Your task to perform on an android device: toggle translation in the chrome app Image 0: 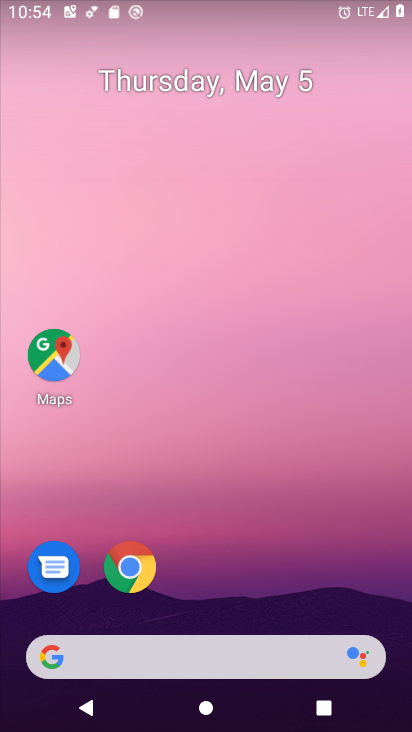
Step 0: click (138, 571)
Your task to perform on an android device: toggle translation in the chrome app Image 1: 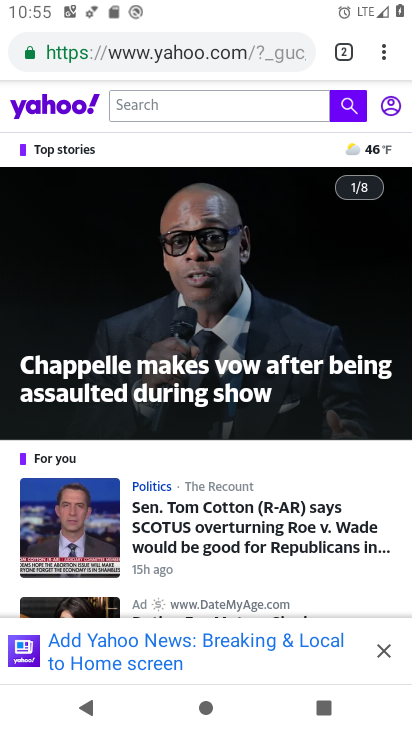
Step 1: click (390, 53)
Your task to perform on an android device: toggle translation in the chrome app Image 2: 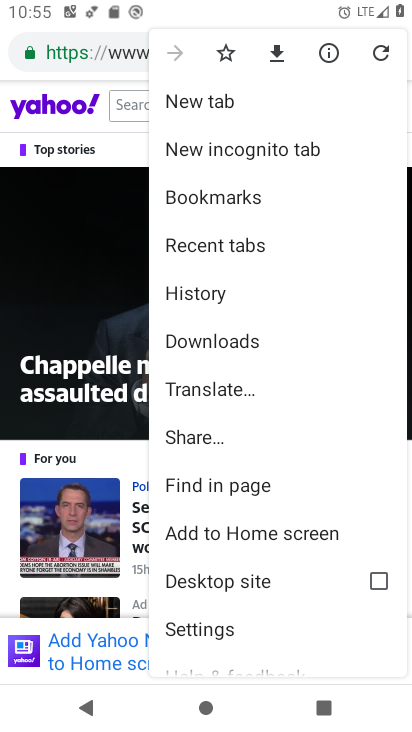
Step 2: click (228, 628)
Your task to perform on an android device: toggle translation in the chrome app Image 3: 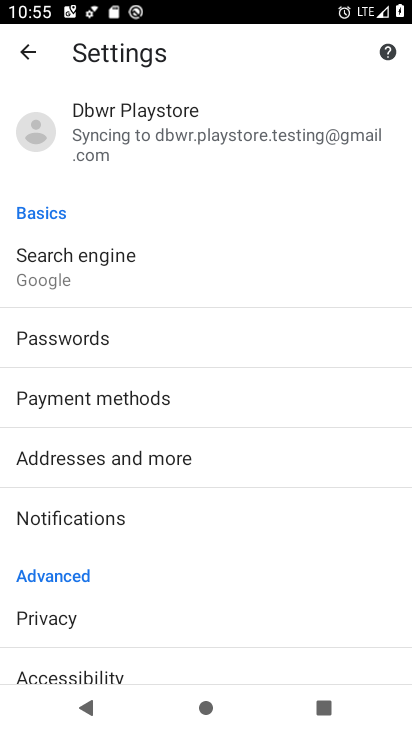
Step 3: drag from (207, 597) to (231, 238)
Your task to perform on an android device: toggle translation in the chrome app Image 4: 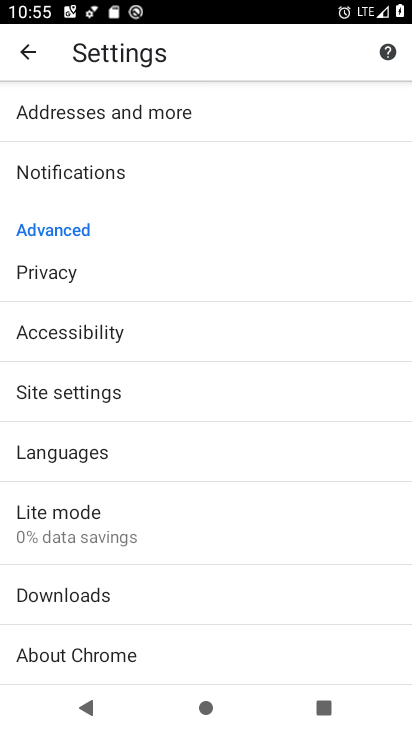
Step 4: click (90, 453)
Your task to perform on an android device: toggle translation in the chrome app Image 5: 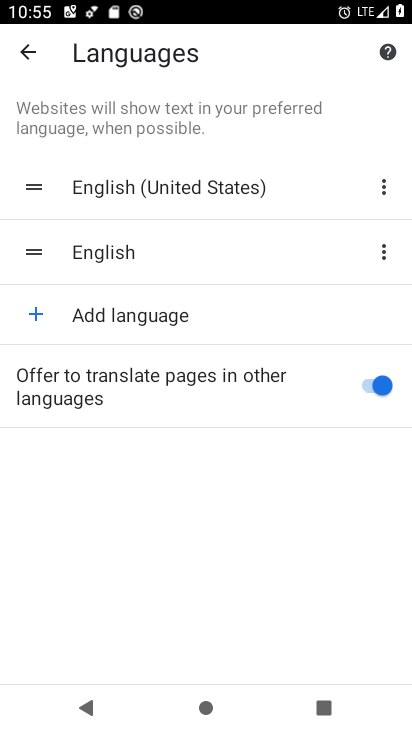
Step 5: click (377, 377)
Your task to perform on an android device: toggle translation in the chrome app Image 6: 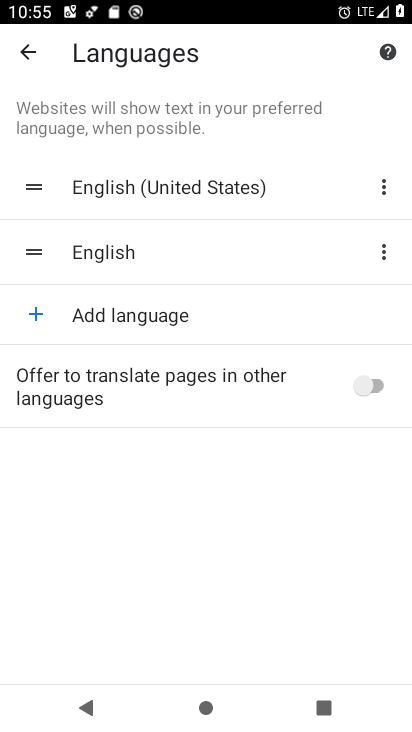
Step 6: task complete